Your task to perform on an android device: Show me the alarms in the clock app Image 0: 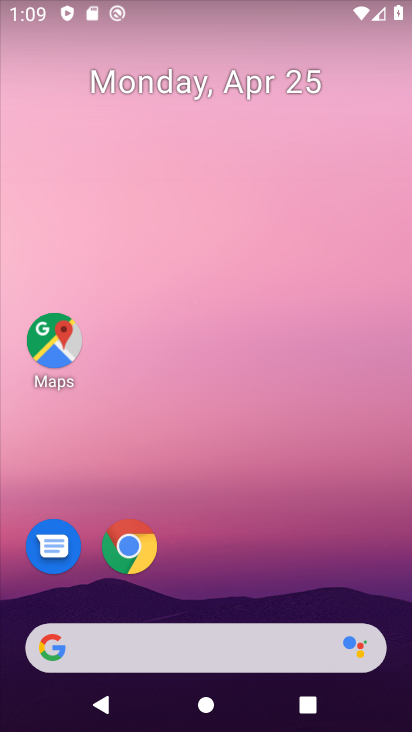
Step 0: drag from (197, 616) to (187, 13)
Your task to perform on an android device: Show me the alarms in the clock app Image 1: 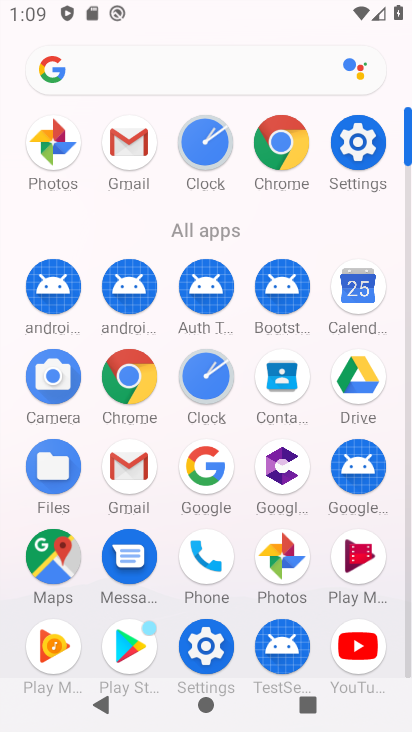
Step 1: click (206, 390)
Your task to perform on an android device: Show me the alarms in the clock app Image 2: 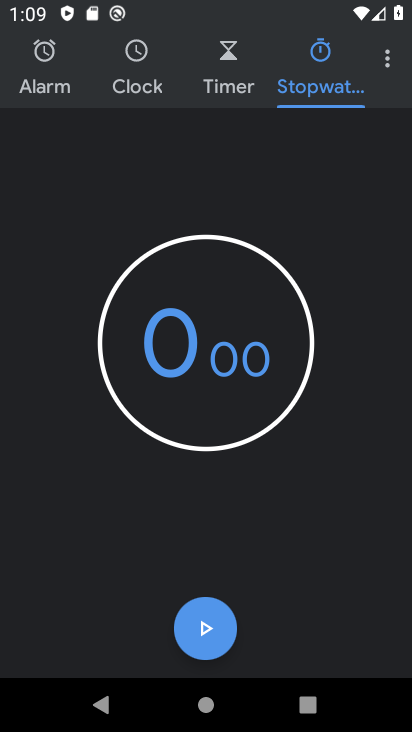
Step 2: click (44, 72)
Your task to perform on an android device: Show me the alarms in the clock app Image 3: 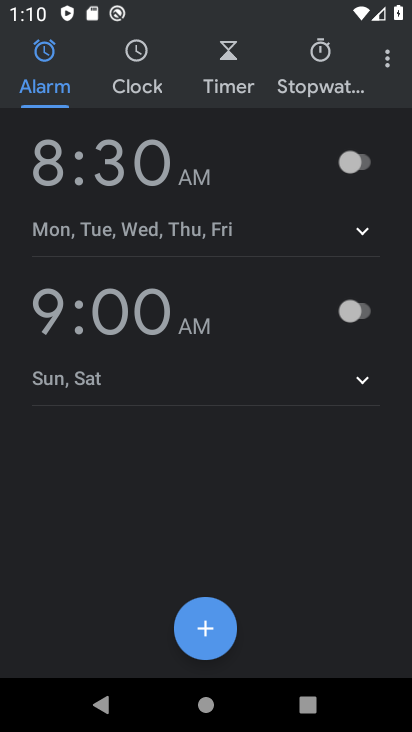
Step 3: task complete